Your task to perform on an android device: add a label to a message in the gmail app Image 0: 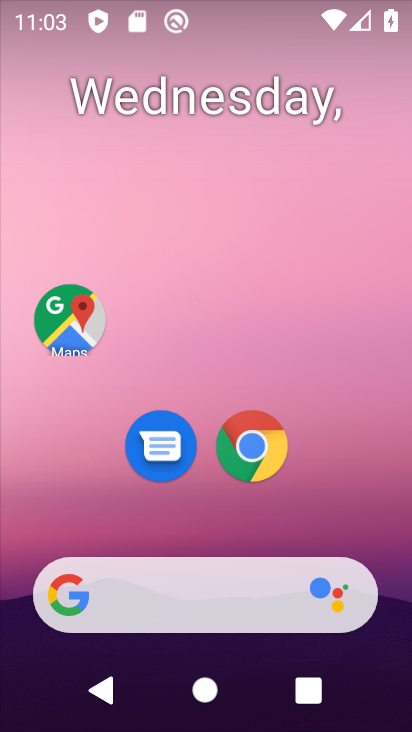
Step 0: drag from (368, 503) to (132, 196)
Your task to perform on an android device: add a label to a message in the gmail app Image 1: 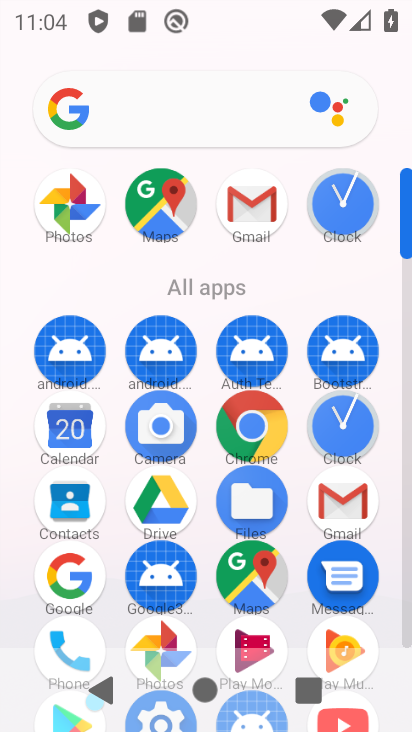
Step 1: click (336, 504)
Your task to perform on an android device: add a label to a message in the gmail app Image 2: 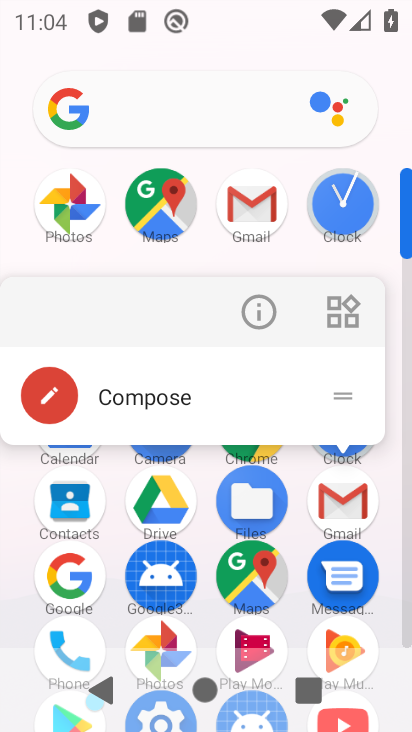
Step 2: click (336, 504)
Your task to perform on an android device: add a label to a message in the gmail app Image 3: 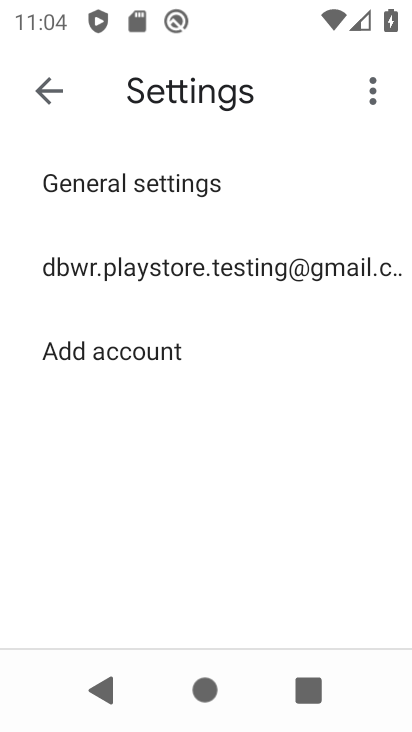
Step 3: press back button
Your task to perform on an android device: add a label to a message in the gmail app Image 4: 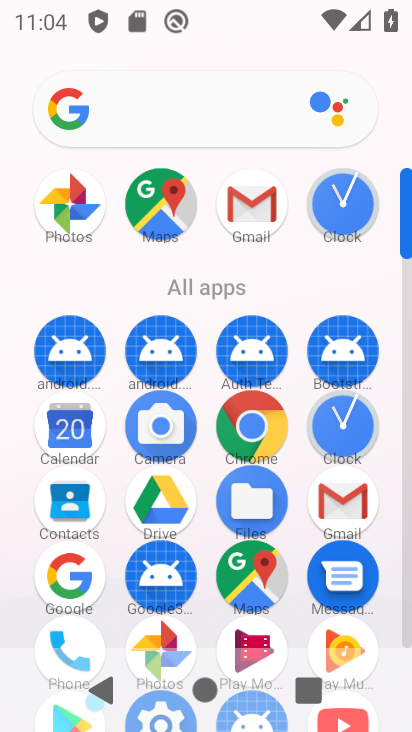
Step 4: click (338, 504)
Your task to perform on an android device: add a label to a message in the gmail app Image 5: 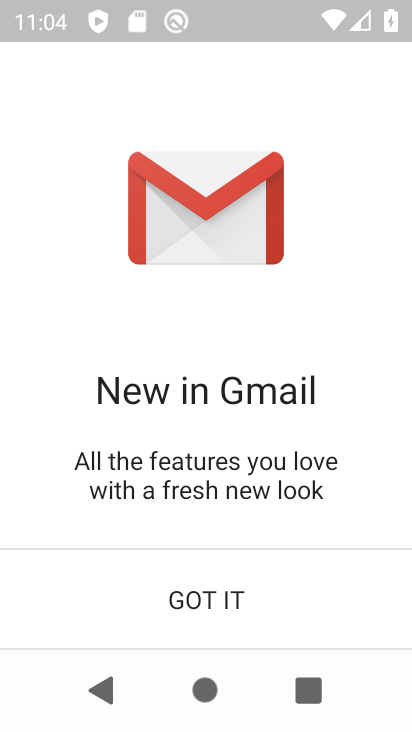
Step 5: click (205, 599)
Your task to perform on an android device: add a label to a message in the gmail app Image 6: 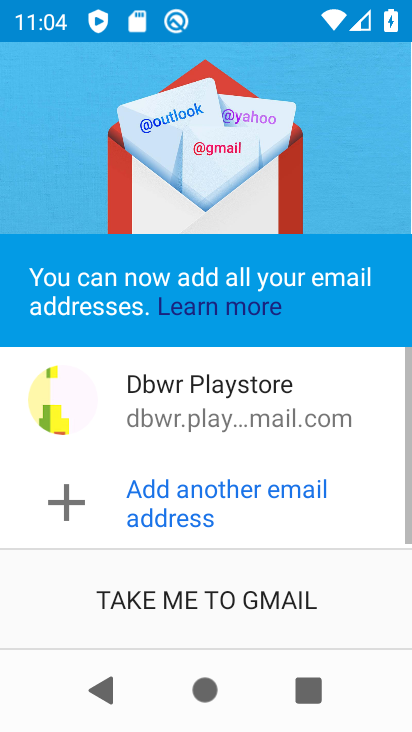
Step 6: click (205, 599)
Your task to perform on an android device: add a label to a message in the gmail app Image 7: 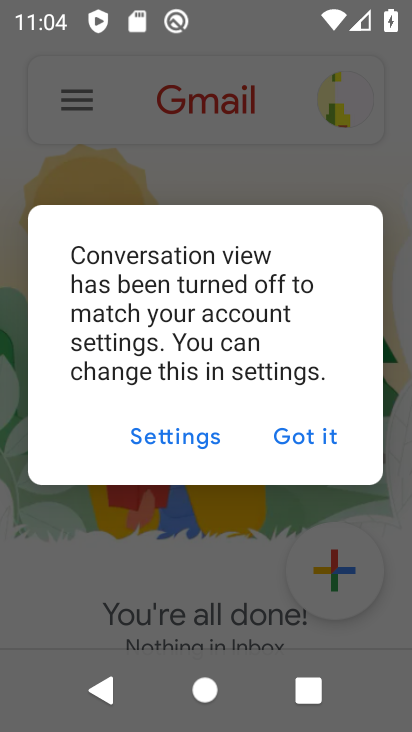
Step 7: click (308, 435)
Your task to perform on an android device: add a label to a message in the gmail app Image 8: 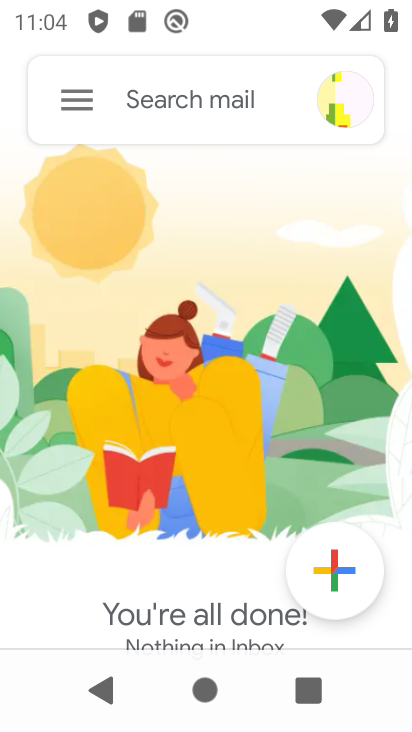
Step 8: click (65, 105)
Your task to perform on an android device: add a label to a message in the gmail app Image 9: 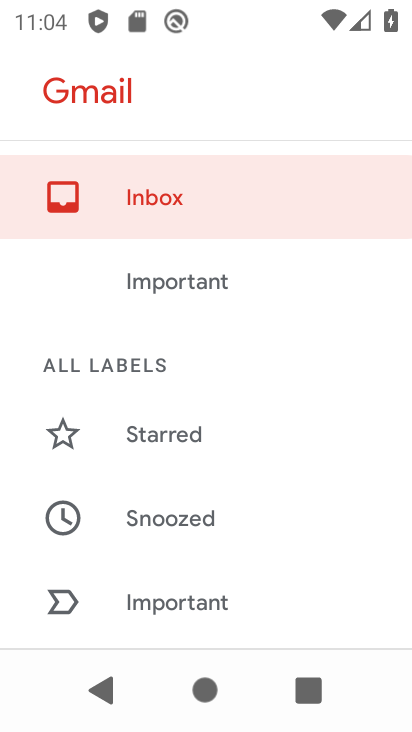
Step 9: task complete